Your task to perform on an android device: open app "Duolingo: language lessons" (install if not already installed) Image 0: 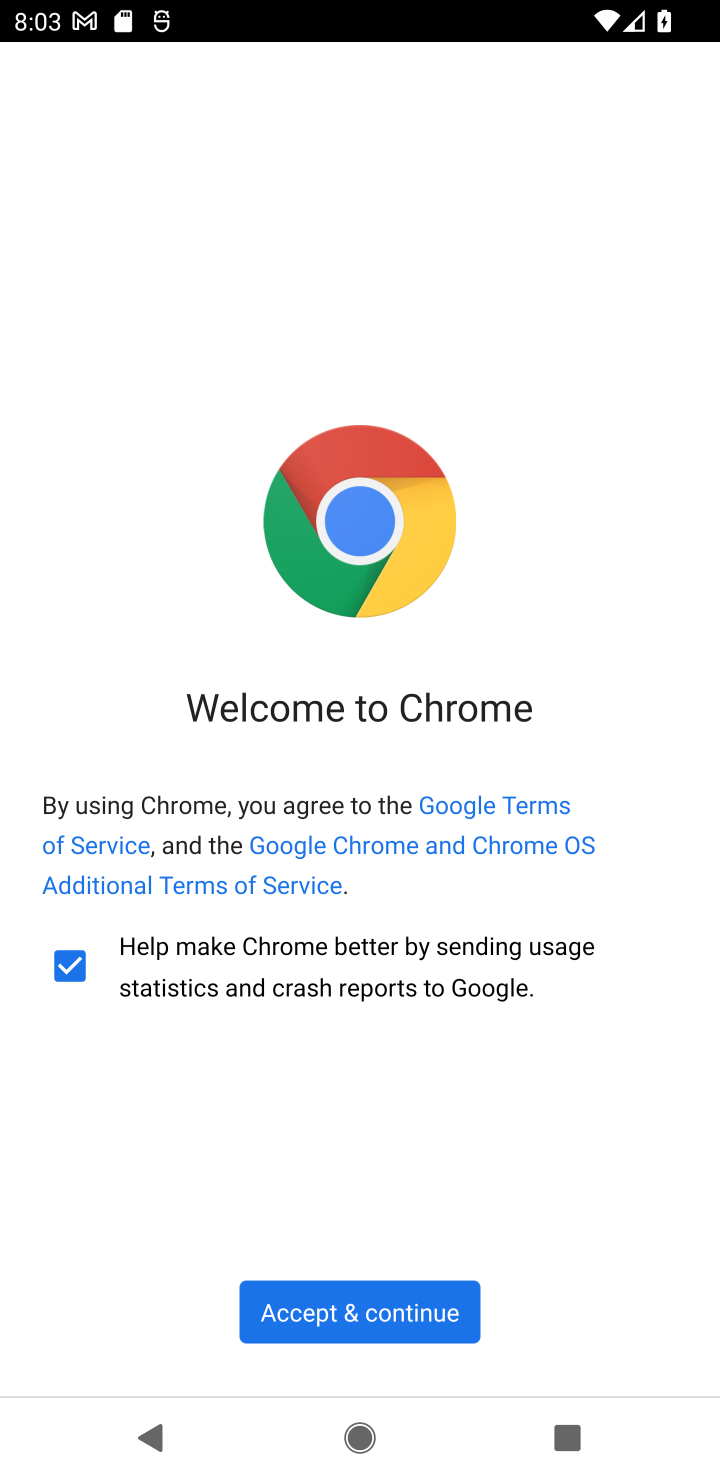
Step 0: press home button
Your task to perform on an android device: open app "Duolingo: language lessons" (install if not already installed) Image 1: 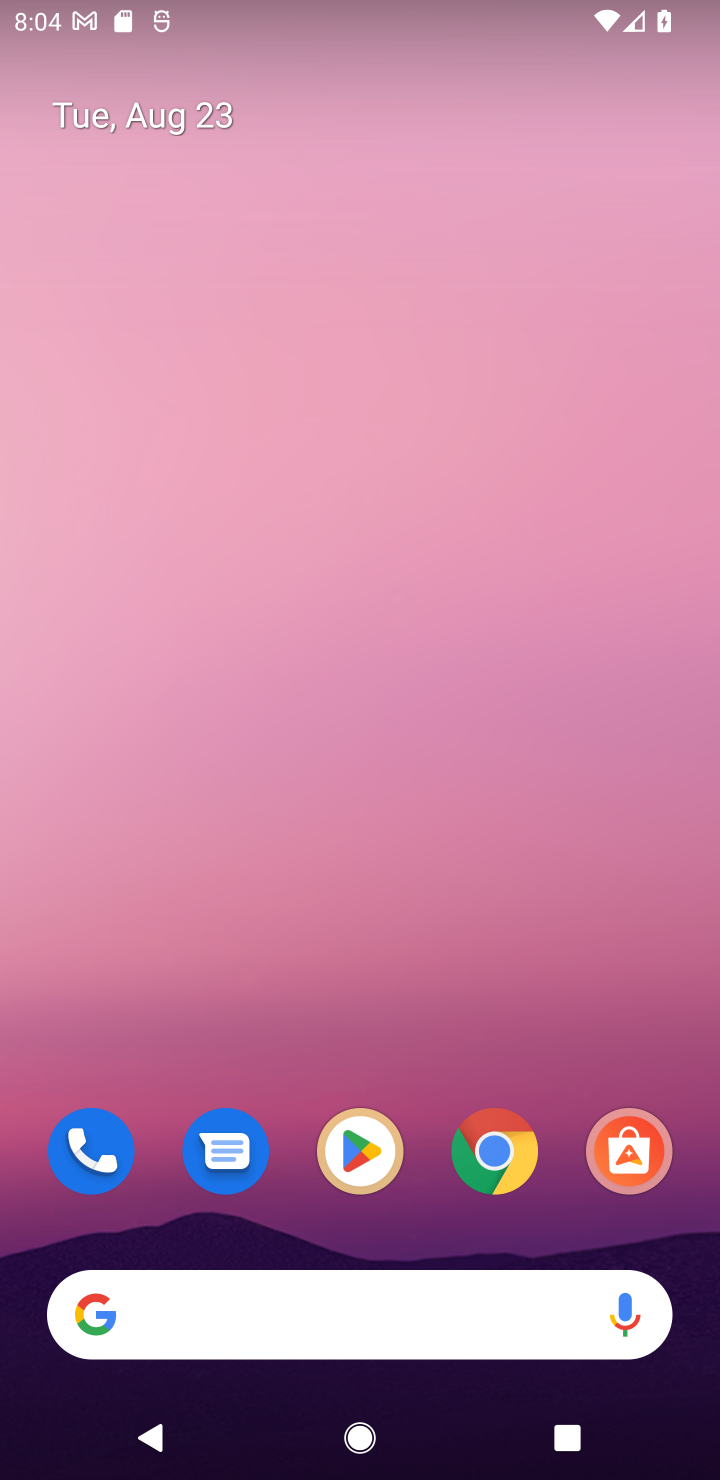
Step 1: click (363, 1175)
Your task to perform on an android device: open app "Duolingo: language lessons" (install if not already installed) Image 2: 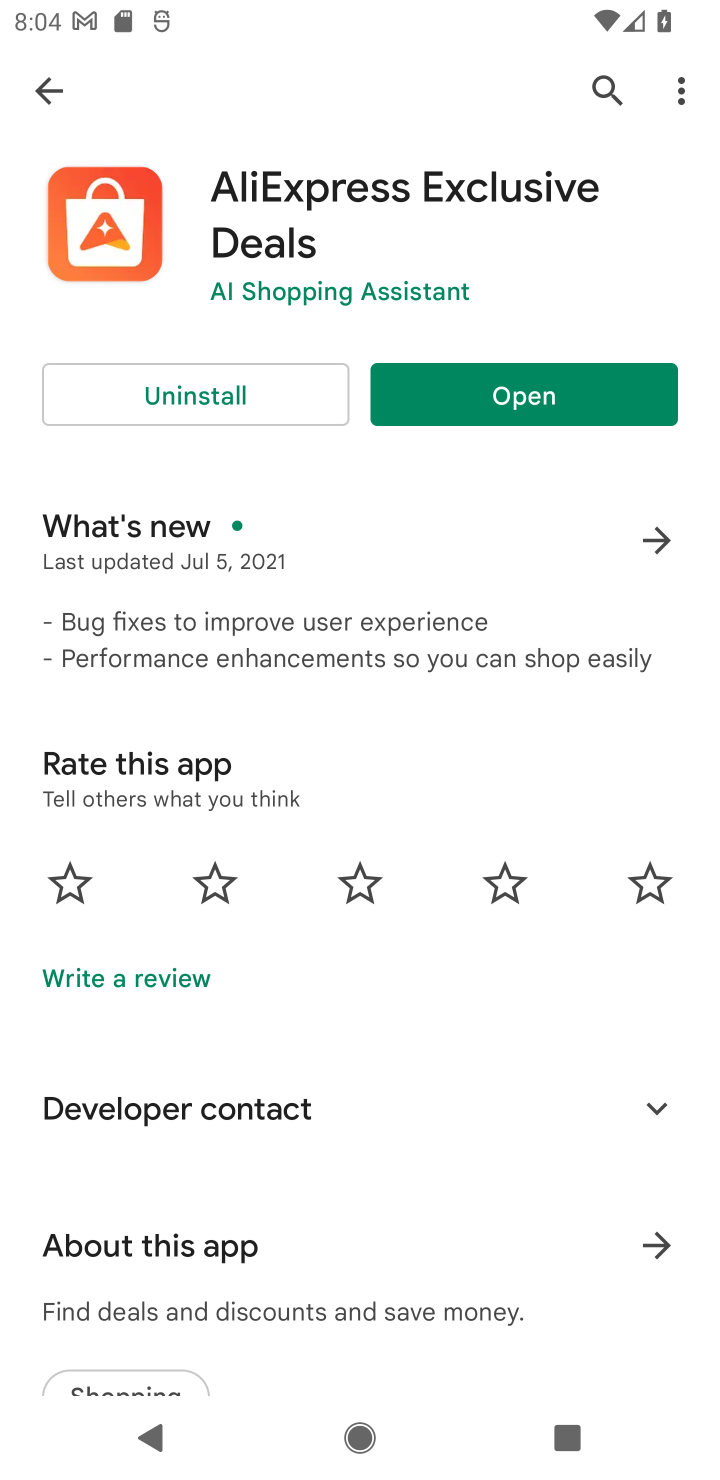
Step 2: click (50, 58)
Your task to perform on an android device: open app "Duolingo: language lessons" (install if not already installed) Image 3: 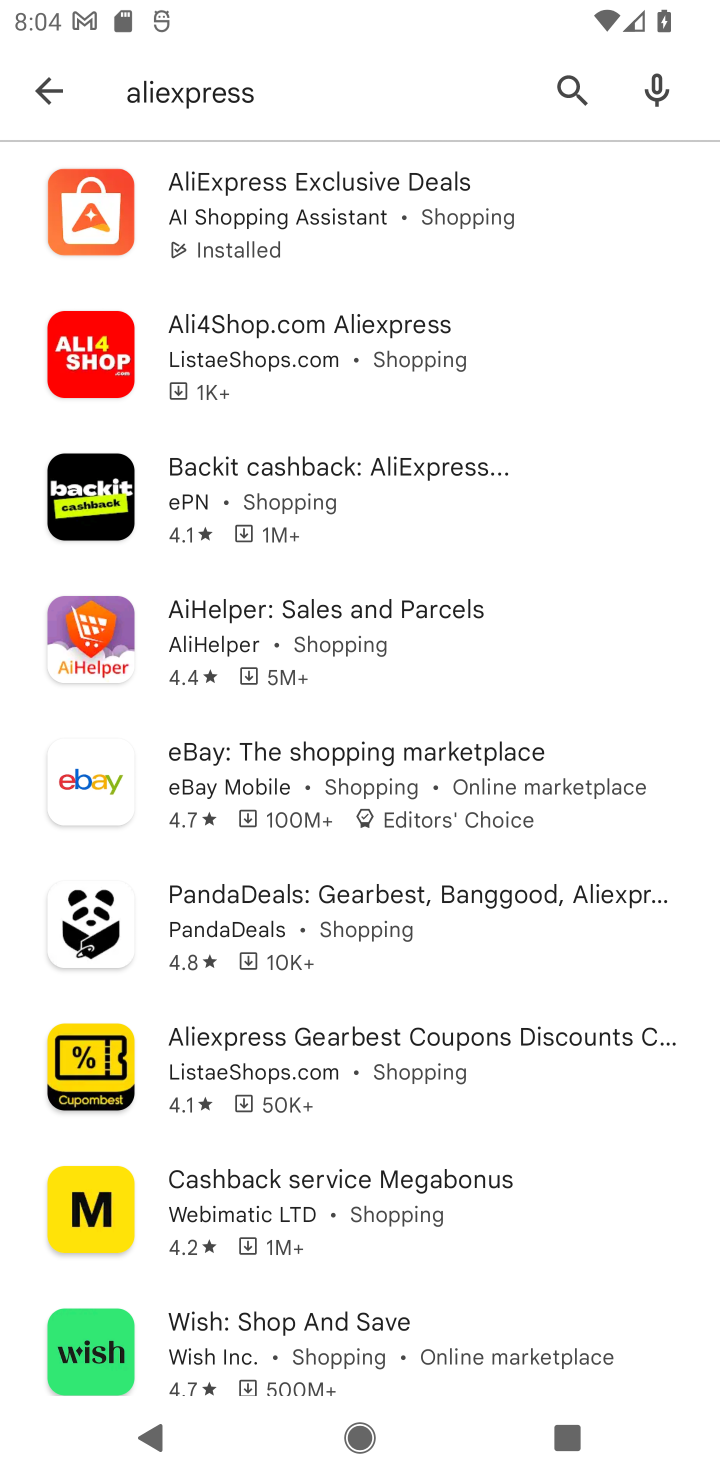
Step 3: click (46, 77)
Your task to perform on an android device: open app "Duolingo: language lessons" (install if not already installed) Image 4: 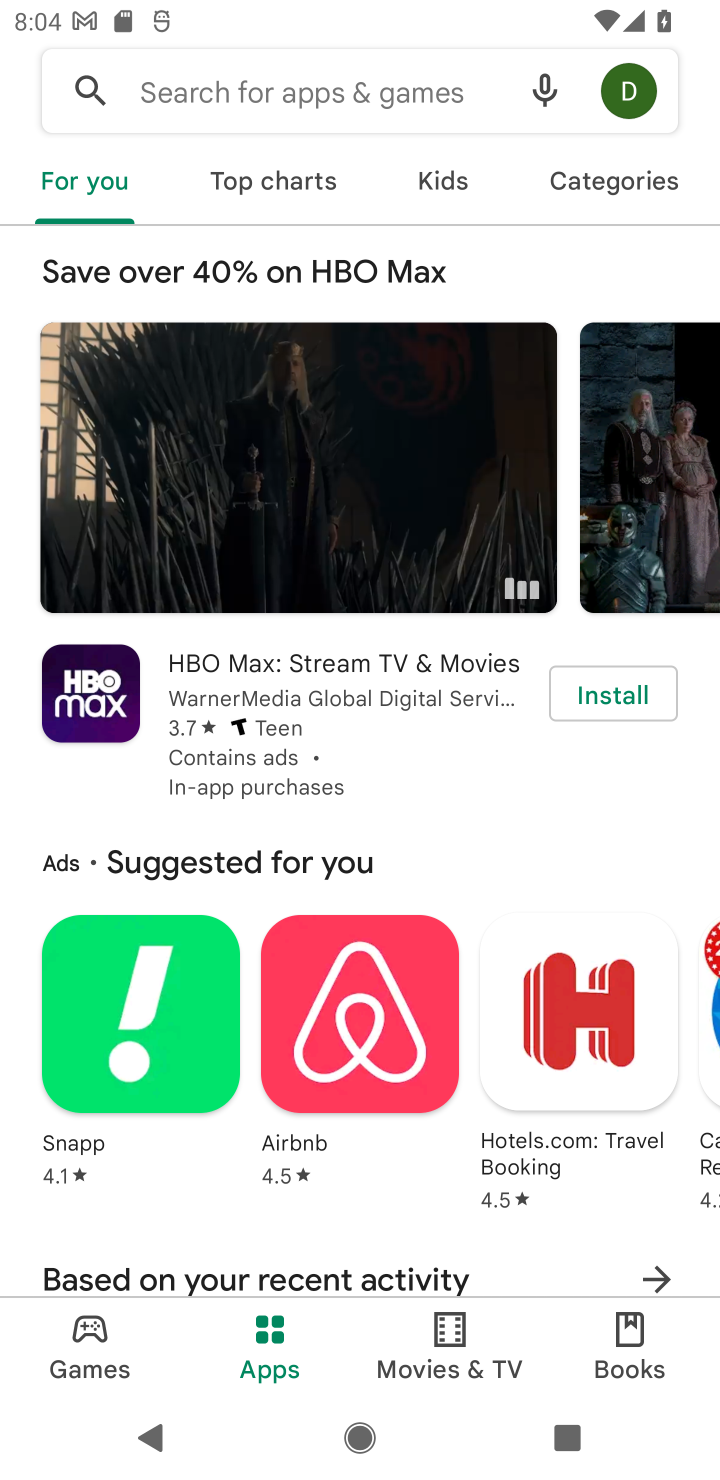
Step 4: click (244, 84)
Your task to perform on an android device: open app "Duolingo: language lessons" (install if not already installed) Image 5: 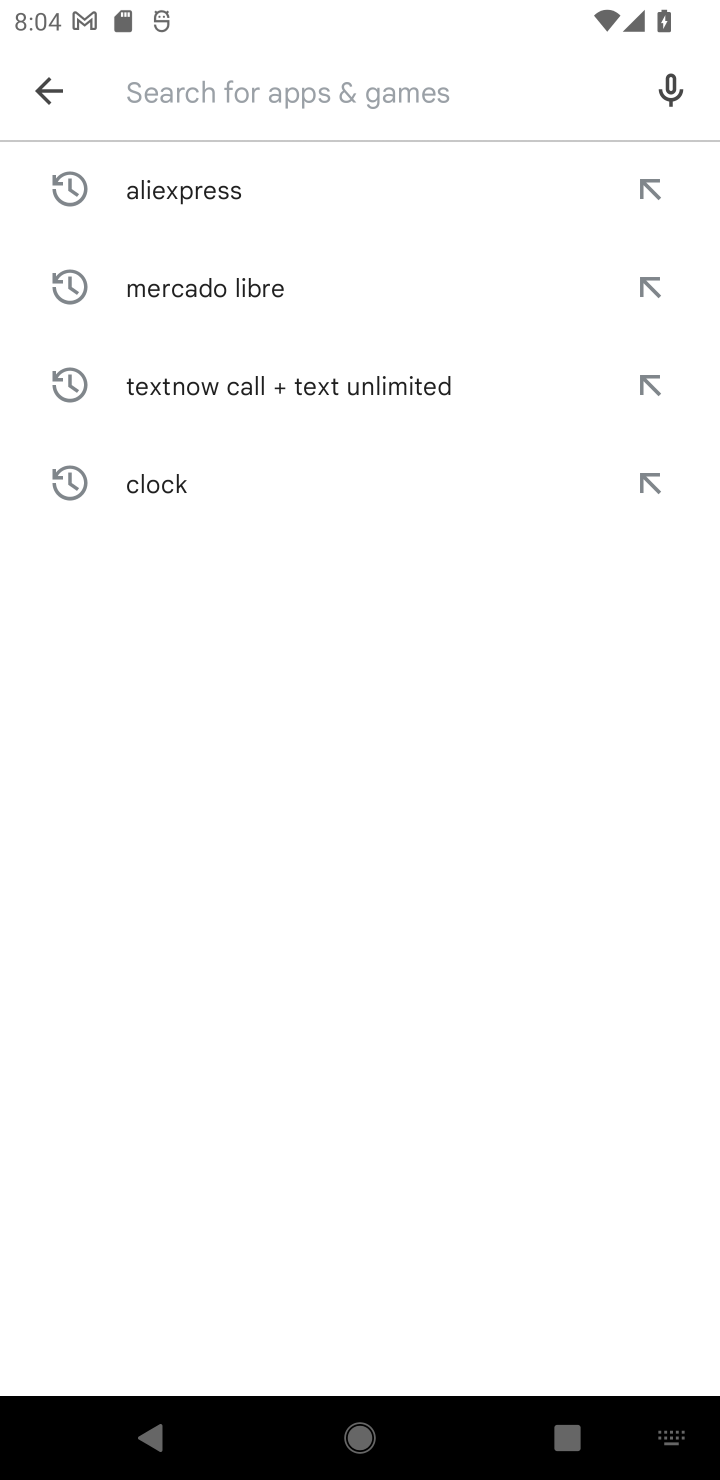
Step 5: type "Duolingo: language lessons"
Your task to perform on an android device: open app "Duolingo: language lessons" (install if not already installed) Image 6: 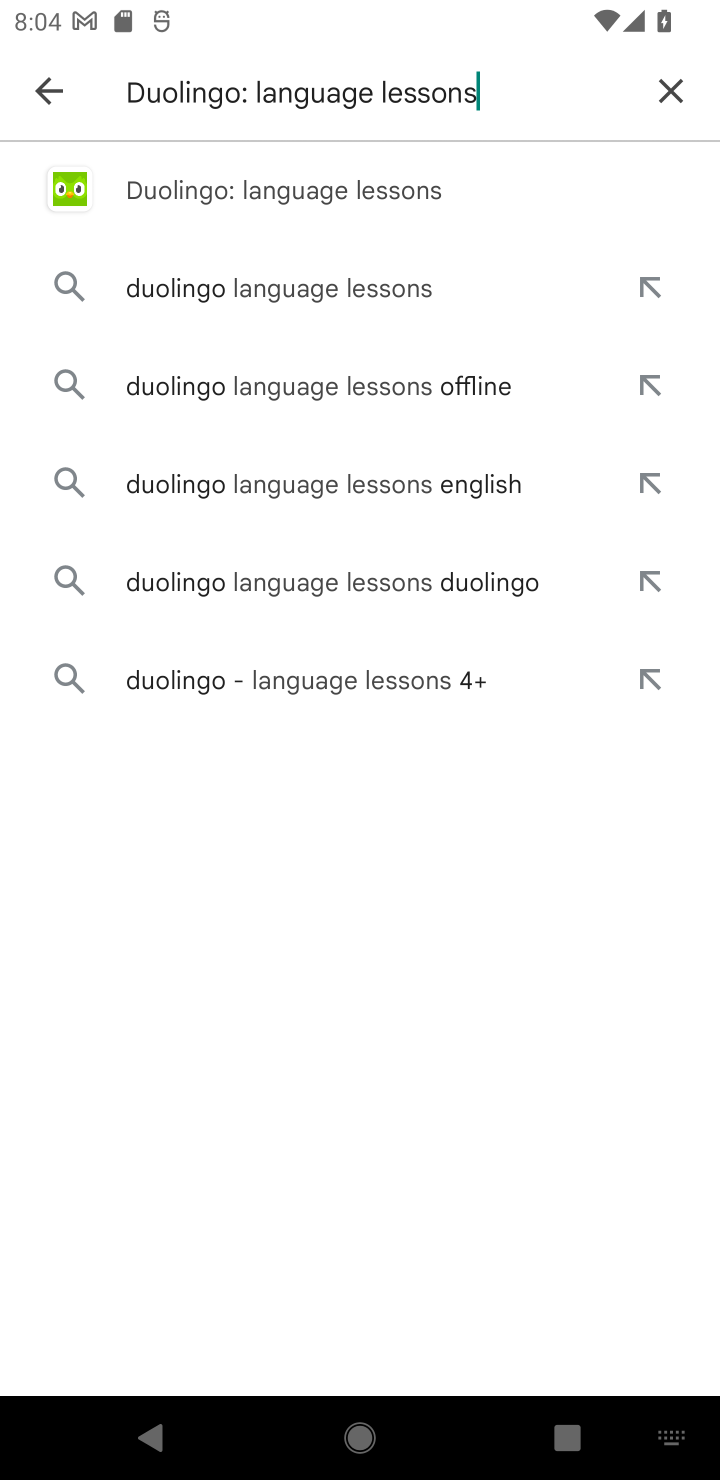
Step 6: click (170, 197)
Your task to perform on an android device: open app "Duolingo: language lessons" (install if not already installed) Image 7: 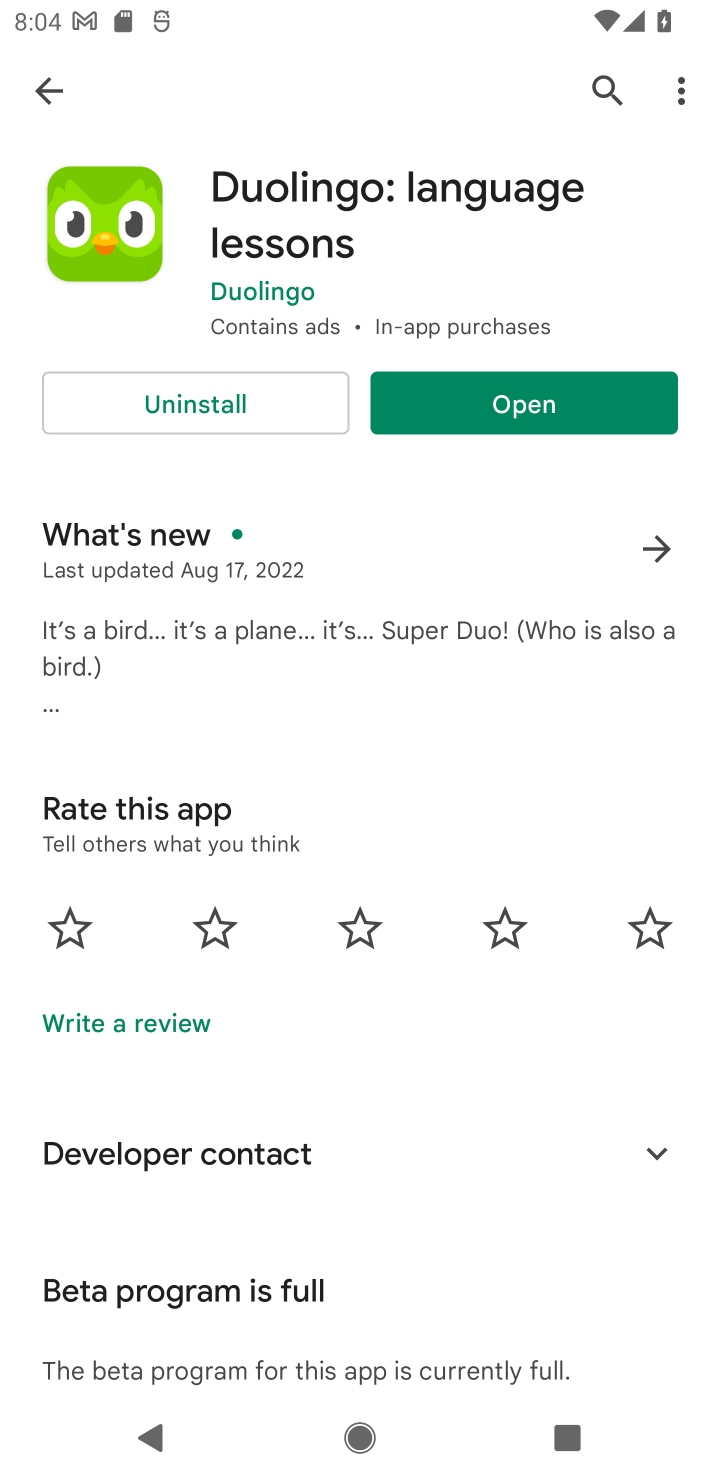
Step 7: click (490, 402)
Your task to perform on an android device: open app "Duolingo: language lessons" (install if not already installed) Image 8: 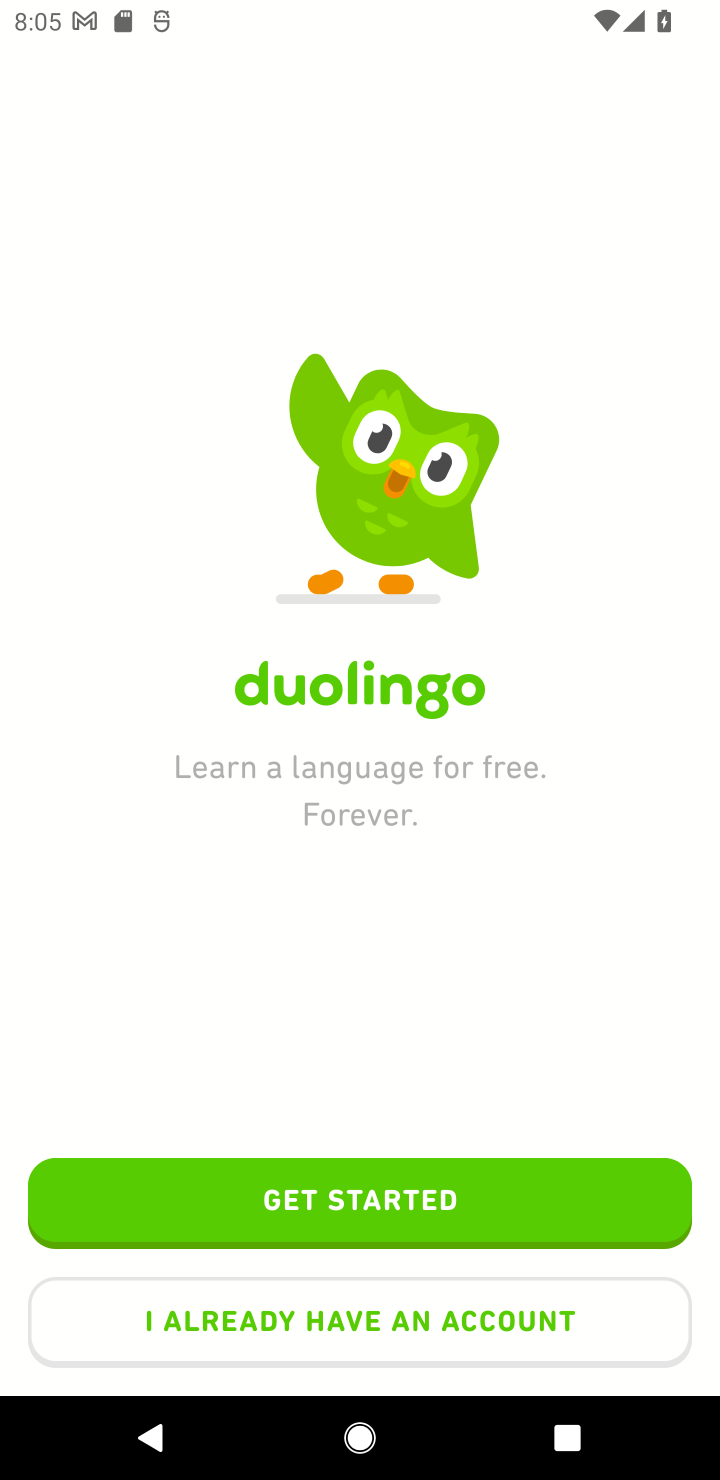
Step 8: task complete